Your task to perform on an android device: Open wifi settings Image 0: 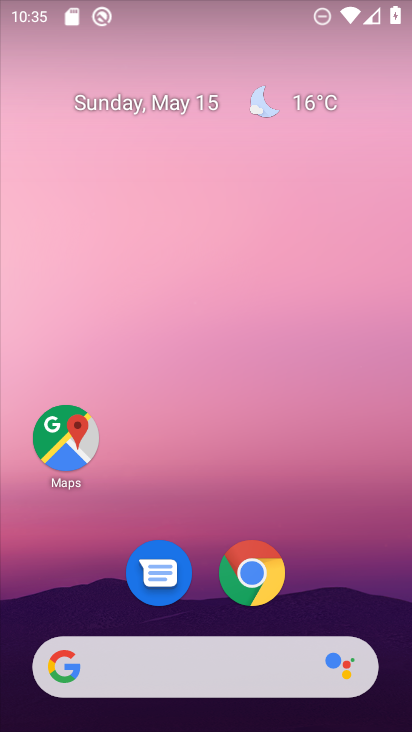
Step 0: drag from (253, 82) to (214, 723)
Your task to perform on an android device: Open wifi settings Image 1: 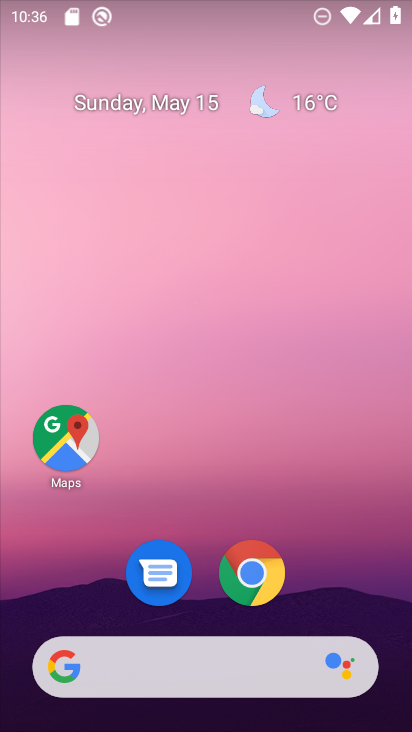
Step 1: drag from (217, 2) to (151, 731)
Your task to perform on an android device: Open wifi settings Image 2: 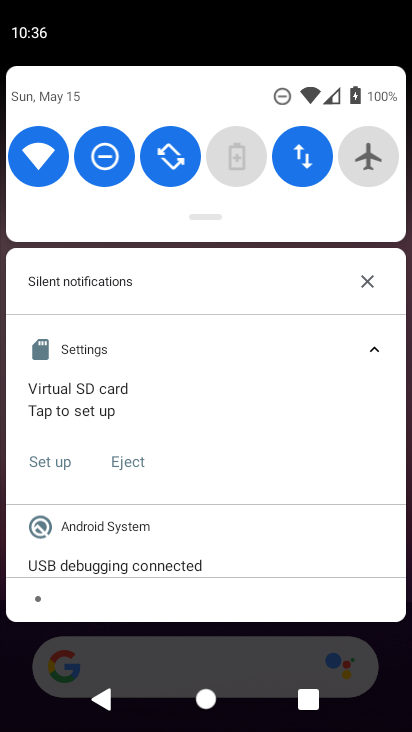
Step 2: click (56, 166)
Your task to perform on an android device: Open wifi settings Image 3: 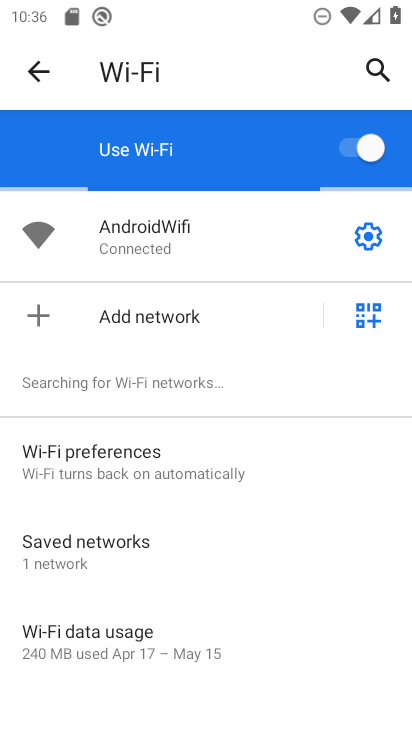
Step 3: task complete